Your task to perform on an android device: search for starred emails in the gmail app Image 0: 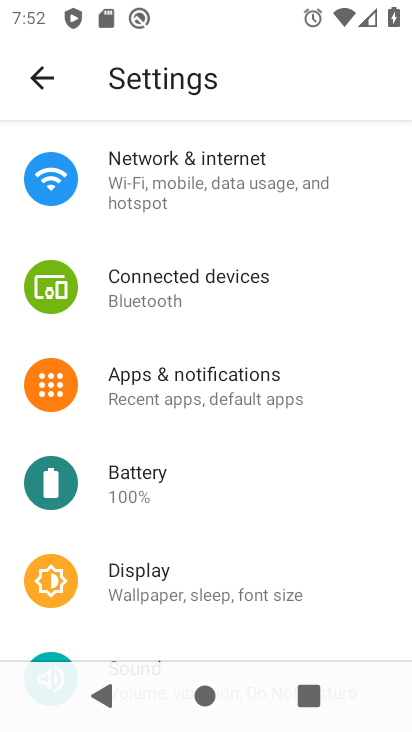
Step 0: press home button
Your task to perform on an android device: search for starred emails in the gmail app Image 1: 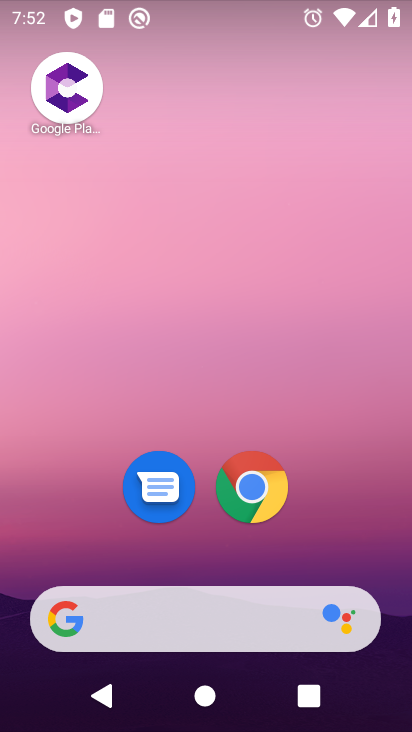
Step 1: drag from (370, 551) to (261, 4)
Your task to perform on an android device: search for starred emails in the gmail app Image 2: 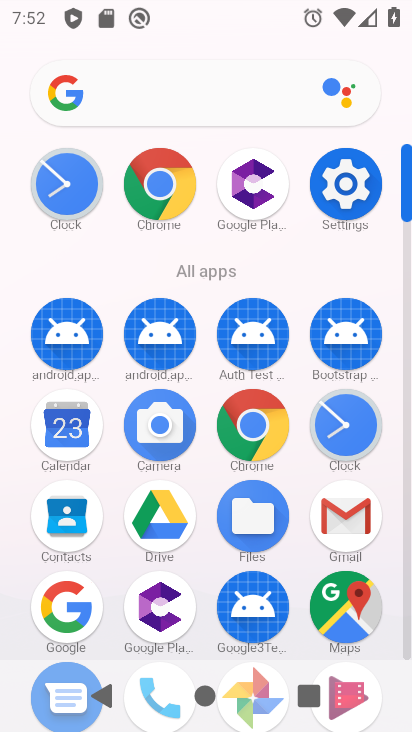
Step 2: click (346, 508)
Your task to perform on an android device: search for starred emails in the gmail app Image 3: 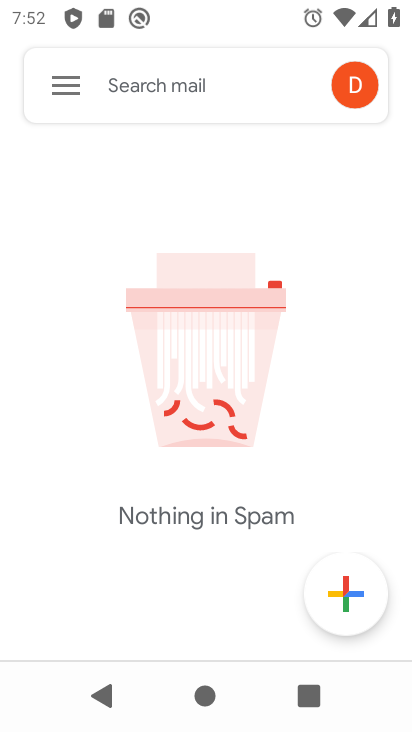
Step 3: click (62, 83)
Your task to perform on an android device: search for starred emails in the gmail app Image 4: 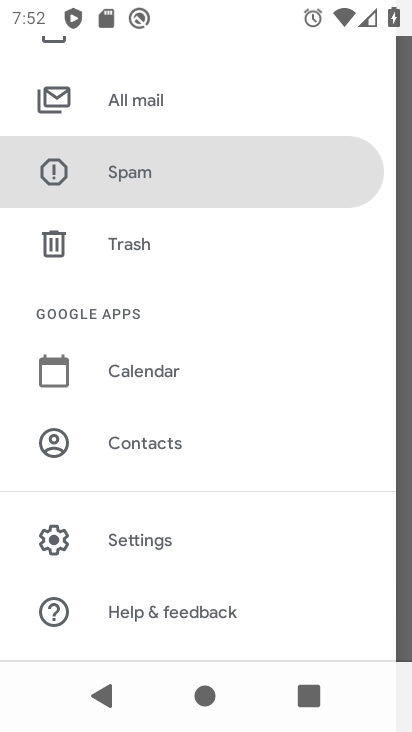
Step 4: drag from (211, 217) to (226, 556)
Your task to perform on an android device: search for starred emails in the gmail app Image 5: 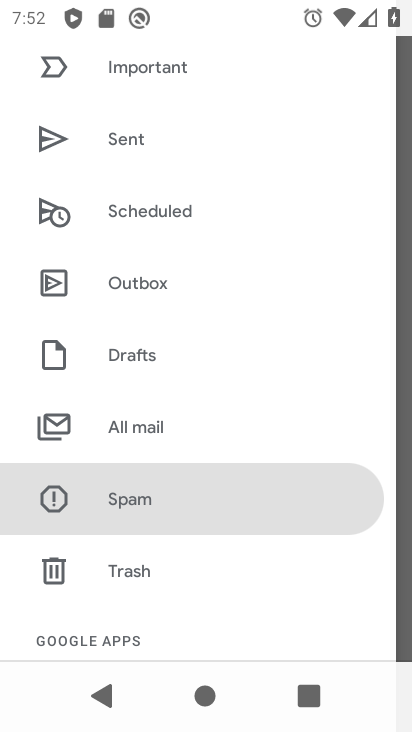
Step 5: drag from (226, 151) to (226, 561)
Your task to perform on an android device: search for starred emails in the gmail app Image 6: 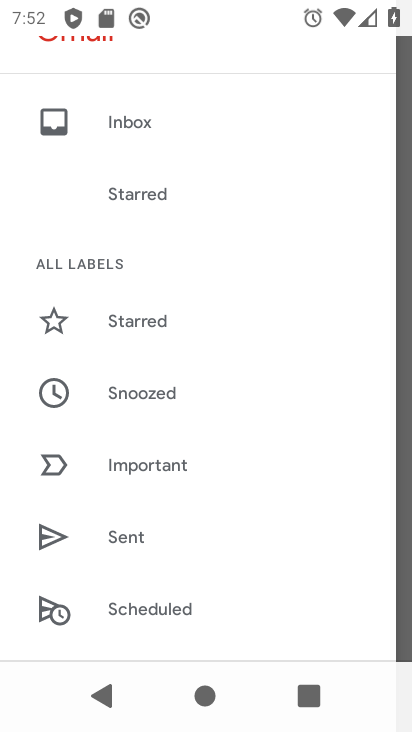
Step 6: click (168, 321)
Your task to perform on an android device: search for starred emails in the gmail app Image 7: 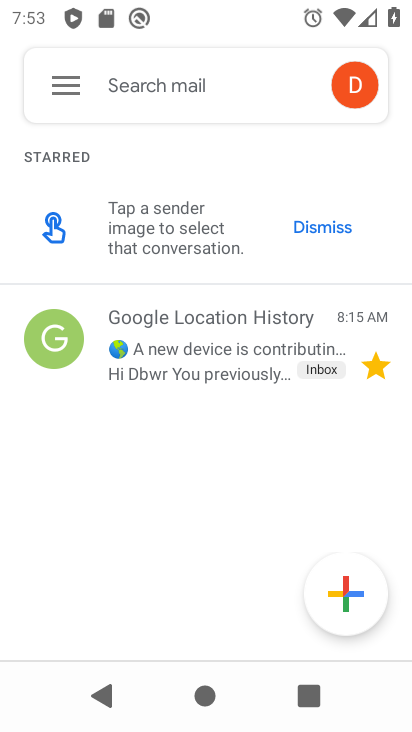
Step 7: task complete